Your task to perform on an android device: Go to Yahoo.com Image 0: 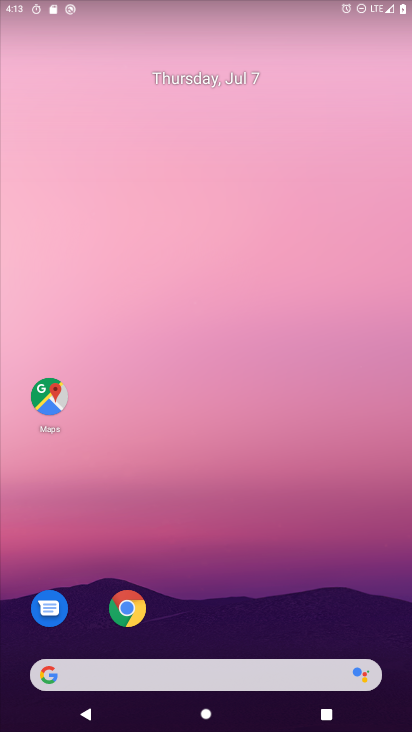
Step 0: click (126, 608)
Your task to perform on an android device: Go to Yahoo.com Image 1: 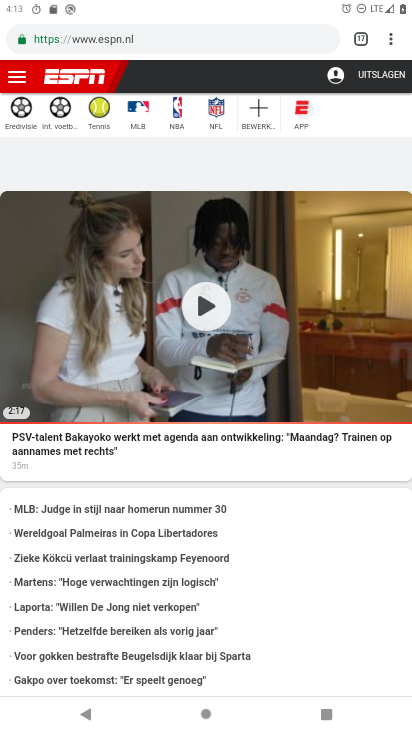
Step 1: click (390, 41)
Your task to perform on an android device: Go to Yahoo.com Image 2: 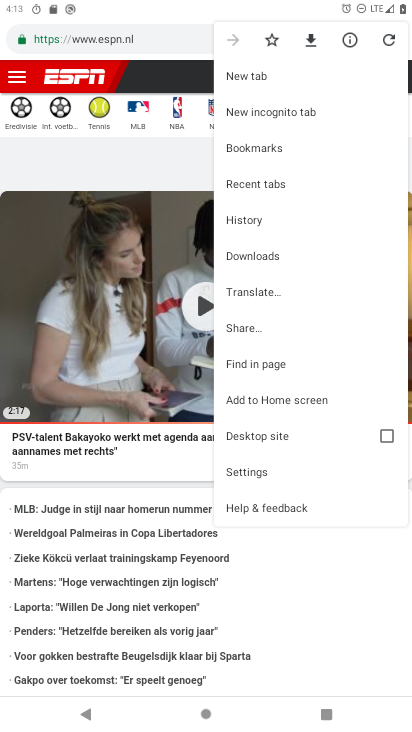
Step 2: click (253, 73)
Your task to perform on an android device: Go to Yahoo.com Image 3: 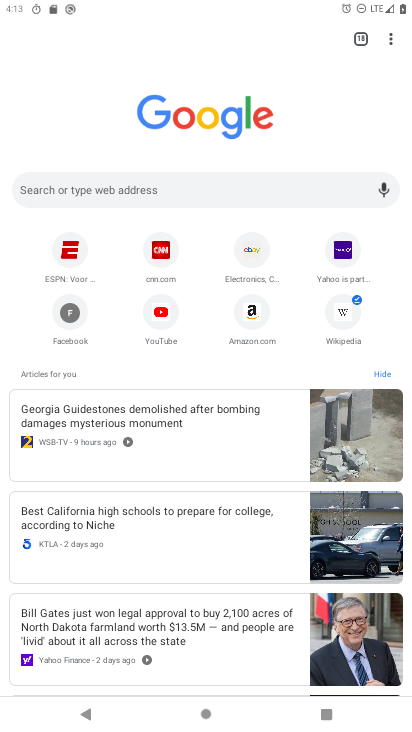
Step 3: click (344, 254)
Your task to perform on an android device: Go to Yahoo.com Image 4: 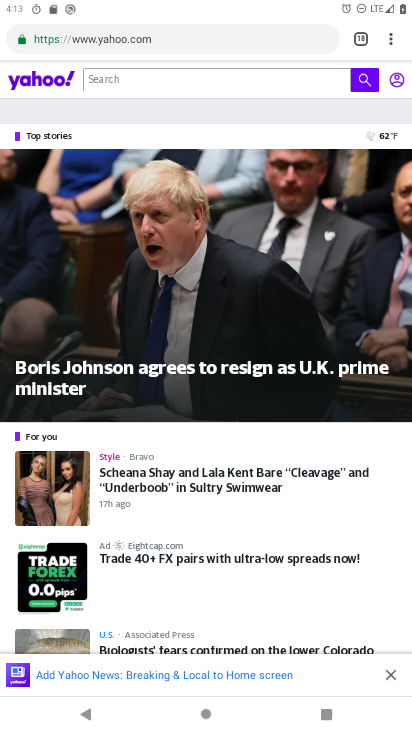
Step 4: task complete